Your task to perform on an android device: change the upload size in google photos Image 0: 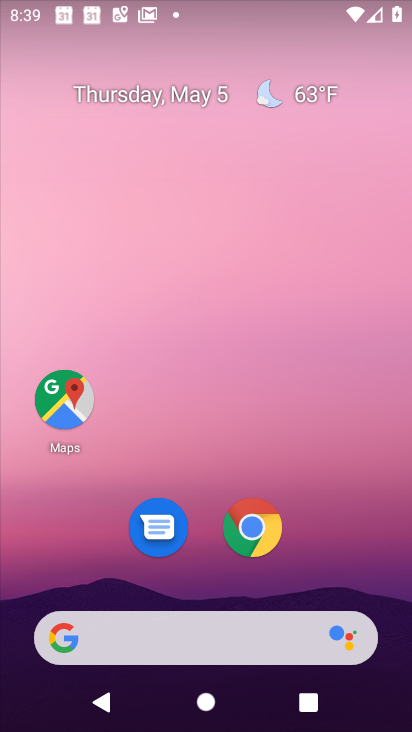
Step 0: drag from (269, 705) to (252, 24)
Your task to perform on an android device: change the upload size in google photos Image 1: 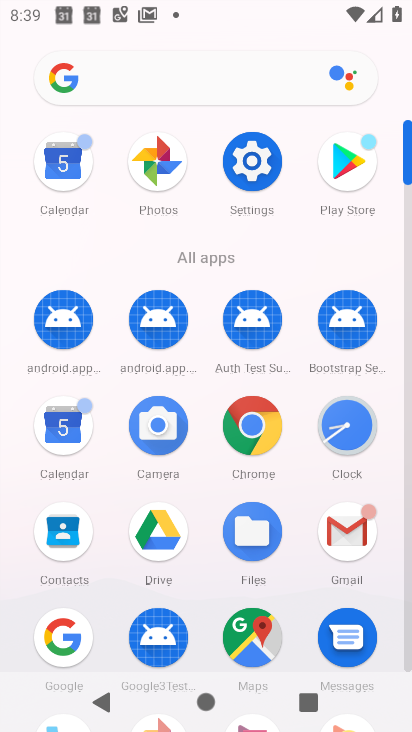
Step 1: click (170, 152)
Your task to perform on an android device: change the upload size in google photos Image 2: 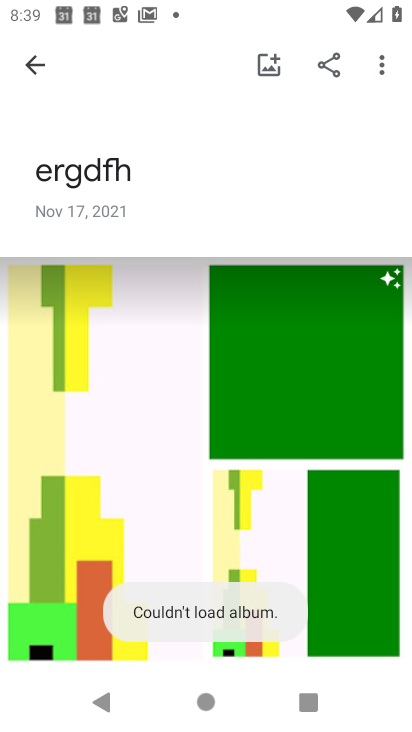
Step 2: click (28, 56)
Your task to perform on an android device: change the upload size in google photos Image 3: 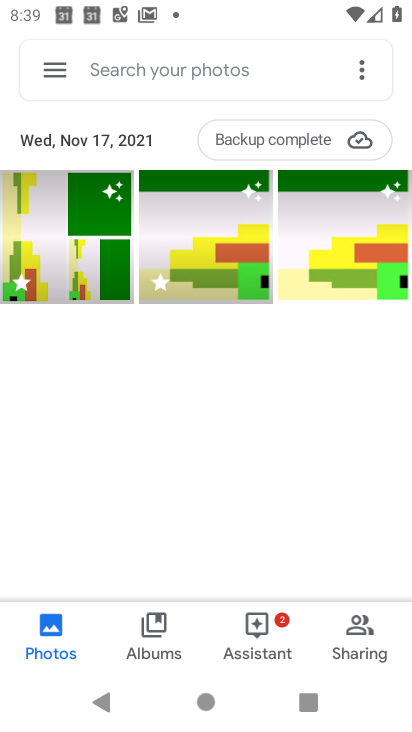
Step 3: click (363, 71)
Your task to perform on an android device: change the upload size in google photos Image 4: 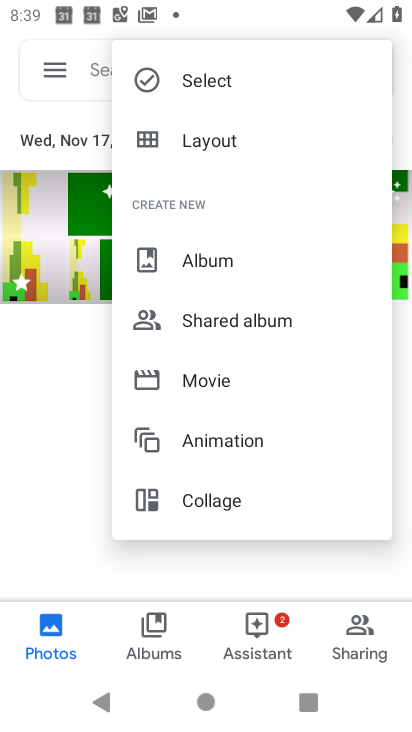
Step 4: click (42, 494)
Your task to perform on an android device: change the upload size in google photos Image 5: 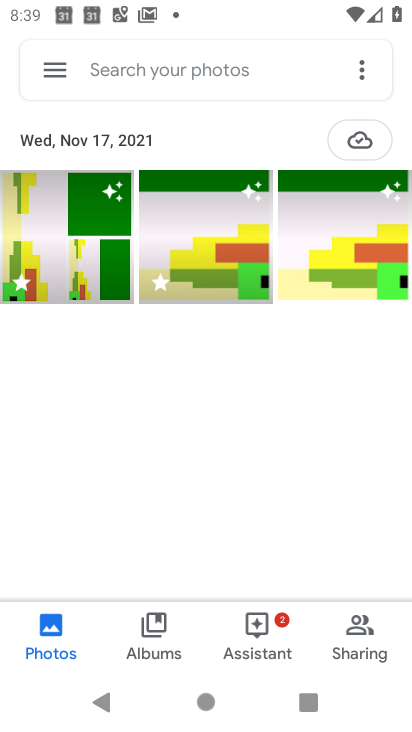
Step 5: click (51, 58)
Your task to perform on an android device: change the upload size in google photos Image 6: 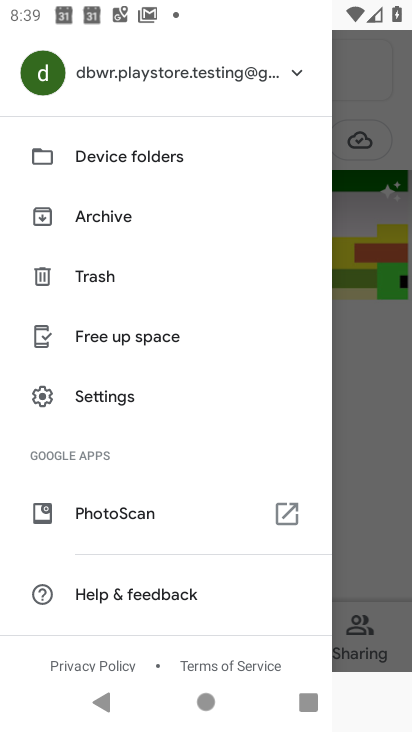
Step 6: click (121, 401)
Your task to perform on an android device: change the upload size in google photos Image 7: 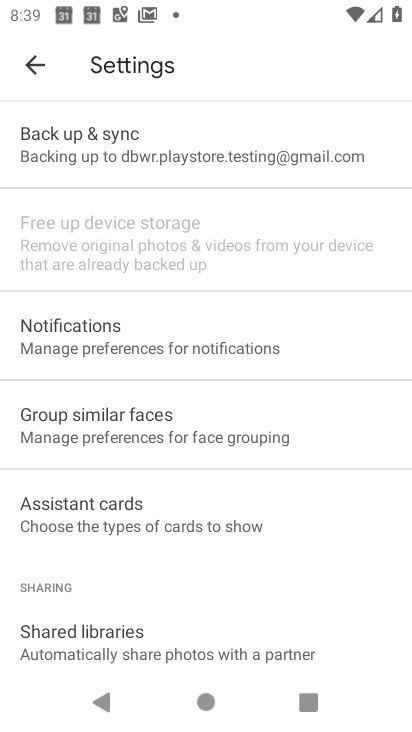
Step 7: click (285, 140)
Your task to perform on an android device: change the upload size in google photos Image 8: 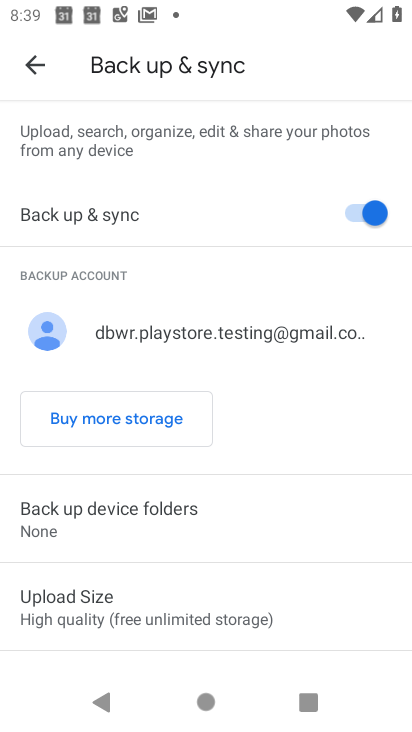
Step 8: click (250, 606)
Your task to perform on an android device: change the upload size in google photos Image 9: 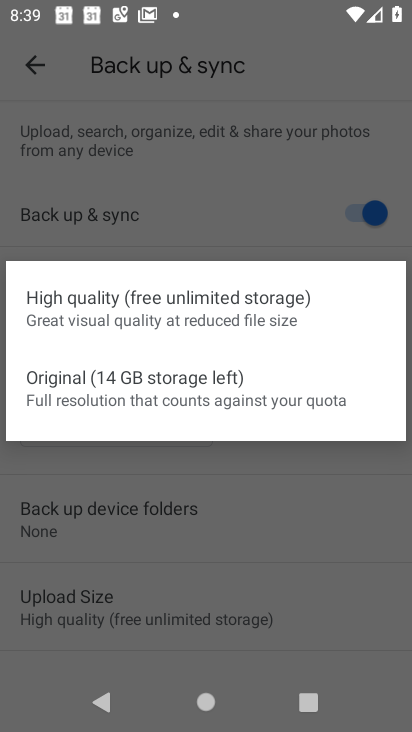
Step 9: click (163, 378)
Your task to perform on an android device: change the upload size in google photos Image 10: 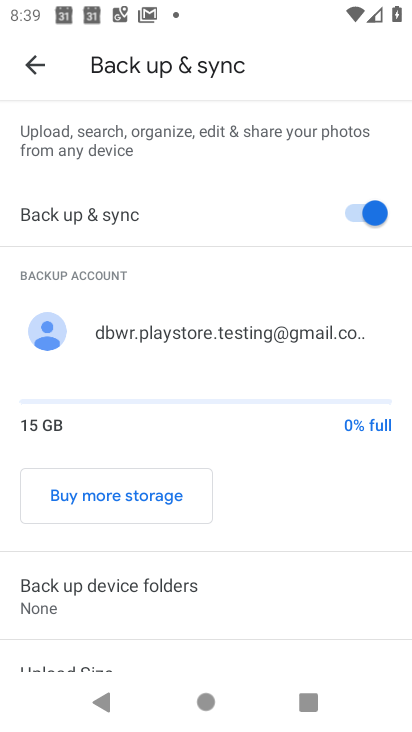
Step 10: task complete